Your task to perform on an android device: clear history in the chrome app Image 0: 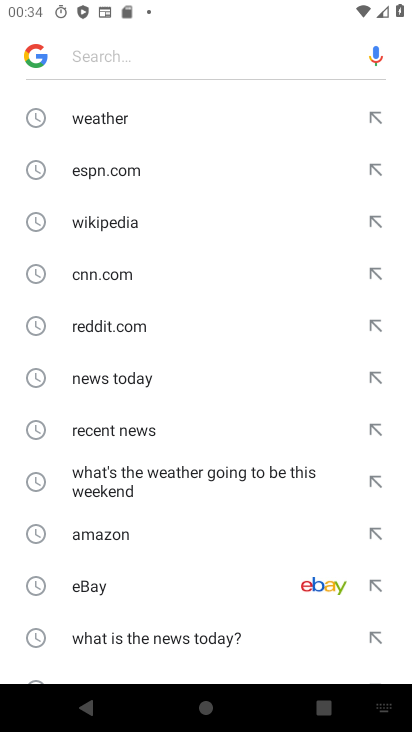
Step 0: press home button
Your task to perform on an android device: clear history in the chrome app Image 1: 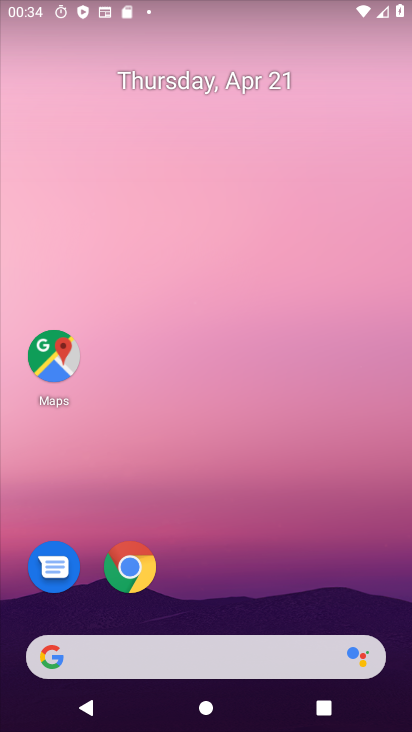
Step 1: drag from (266, 588) to (248, 265)
Your task to perform on an android device: clear history in the chrome app Image 2: 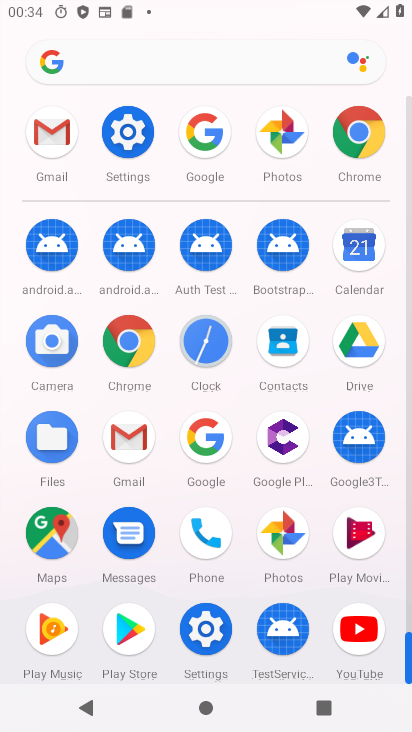
Step 2: click (370, 135)
Your task to perform on an android device: clear history in the chrome app Image 3: 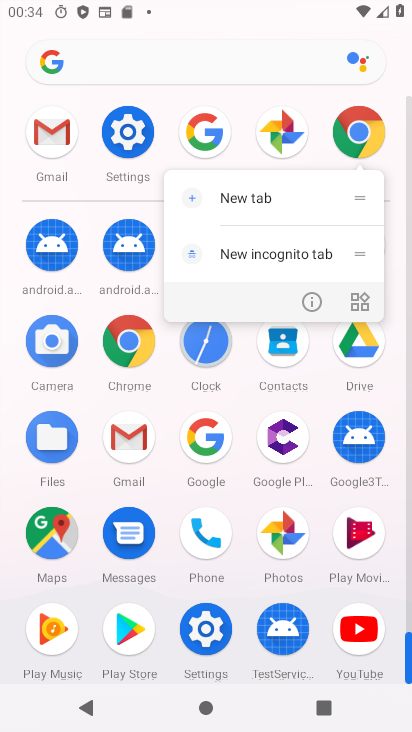
Step 3: click (143, 342)
Your task to perform on an android device: clear history in the chrome app Image 4: 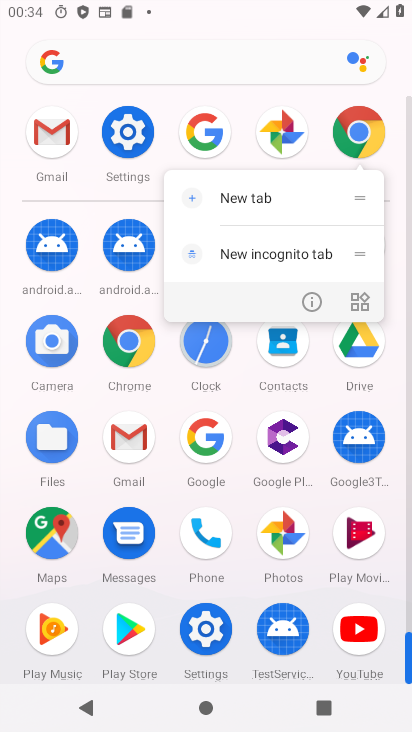
Step 4: click (143, 342)
Your task to perform on an android device: clear history in the chrome app Image 5: 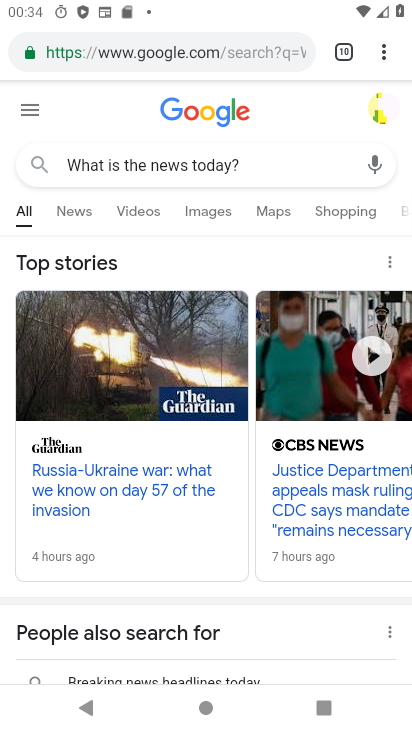
Step 5: click (381, 49)
Your task to perform on an android device: clear history in the chrome app Image 6: 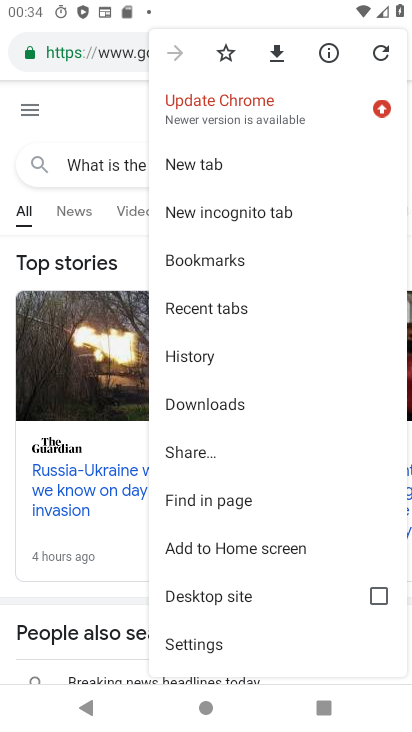
Step 6: click (214, 365)
Your task to perform on an android device: clear history in the chrome app Image 7: 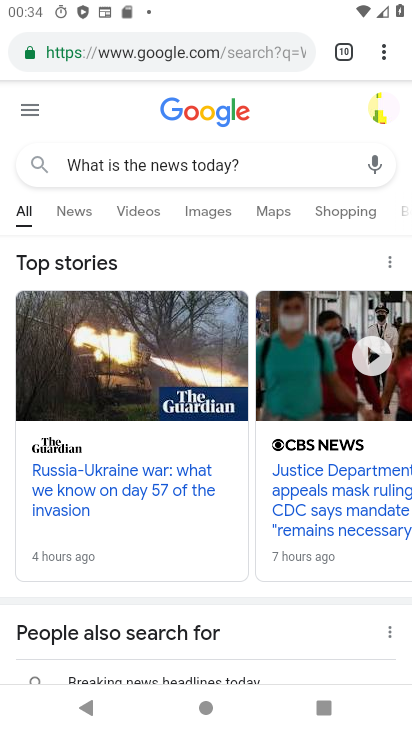
Step 7: click (214, 365)
Your task to perform on an android device: clear history in the chrome app Image 8: 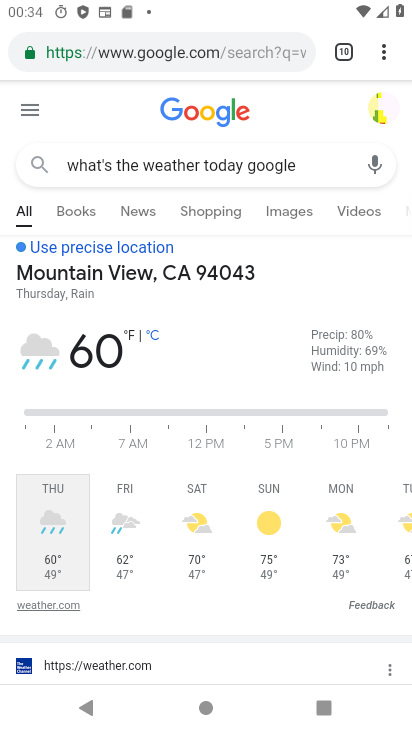
Step 8: click (380, 61)
Your task to perform on an android device: clear history in the chrome app Image 9: 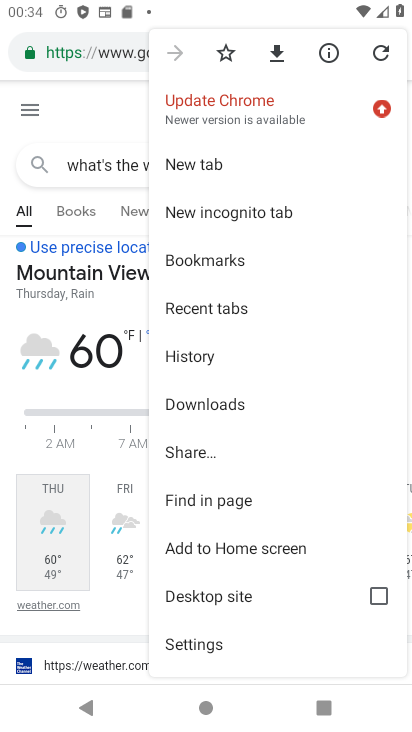
Step 9: click (232, 349)
Your task to perform on an android device: clear history in the chrome app Image 10: 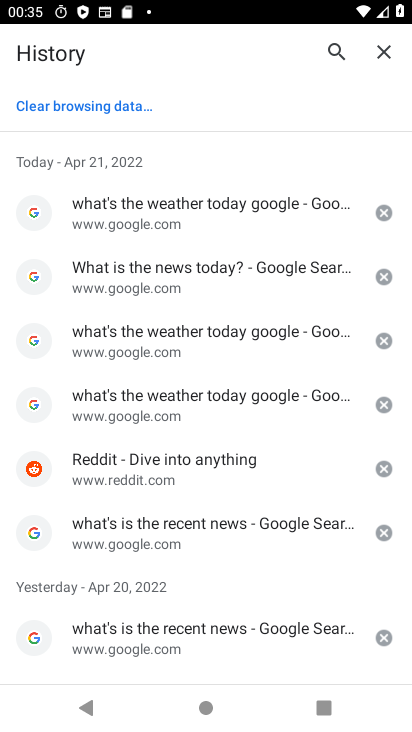
Step 10: click (117, 105)
Your task to perform on an android device: clear history in the chrome app Image 11: 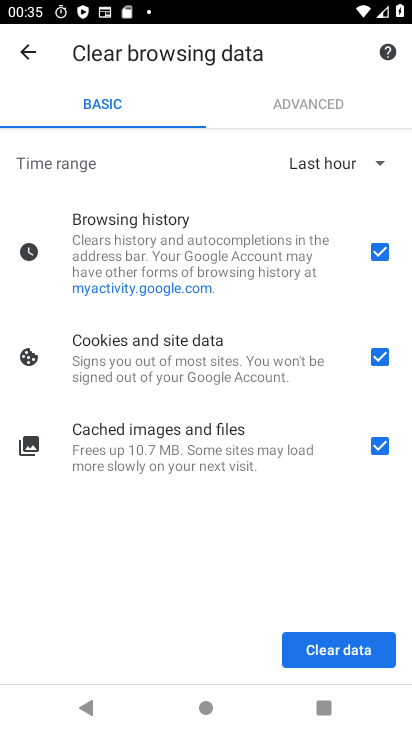
Step 11: click (340, 646)
Your task to perform on an android device: clear history in the chrome app Image 12: 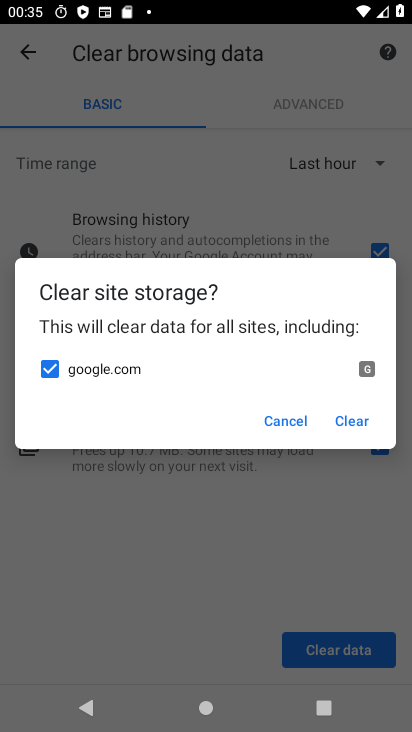
Step 12: click (341, 420)
Your task to perform on an android device: clear history in the chrome app Image 13: 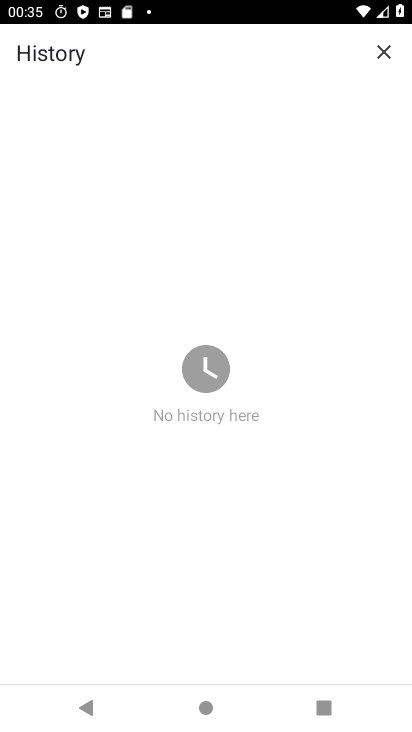
Step 13: task complete